Your task to perform on an android device: change your default location settings in chrome Image 0: 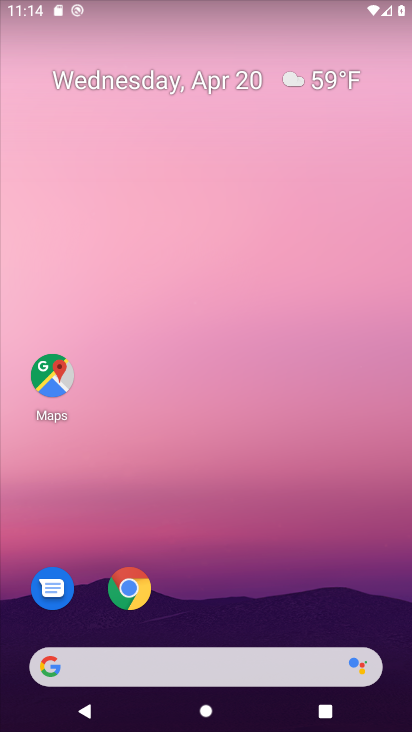
Step 0: click (130, 588)
Your task to perform on an android device: change your default location settings in chrome Image 1: 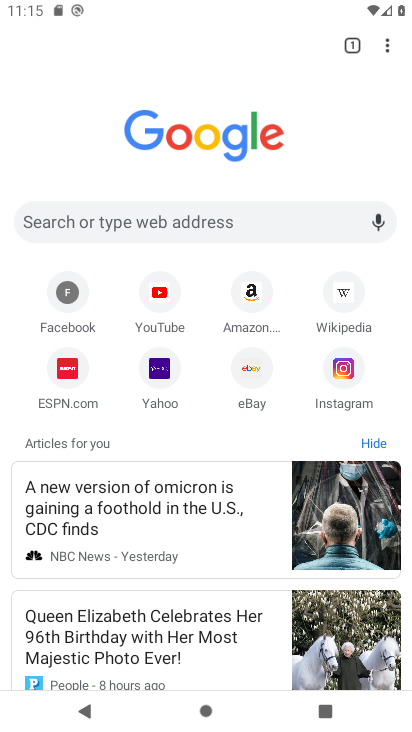
Step 1: click (385, 50)
Your task to perform on an android device: change your default location settings in chrome Image 2: 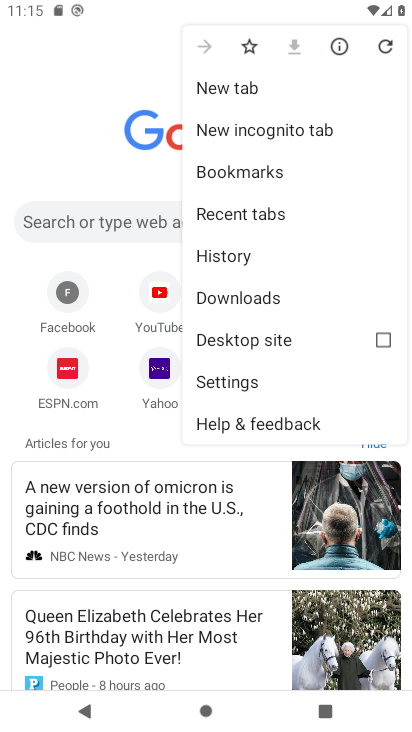
Step 2: click (226, 378)
Your task to perform on an android device: change your default location settings in chrome Image 3: 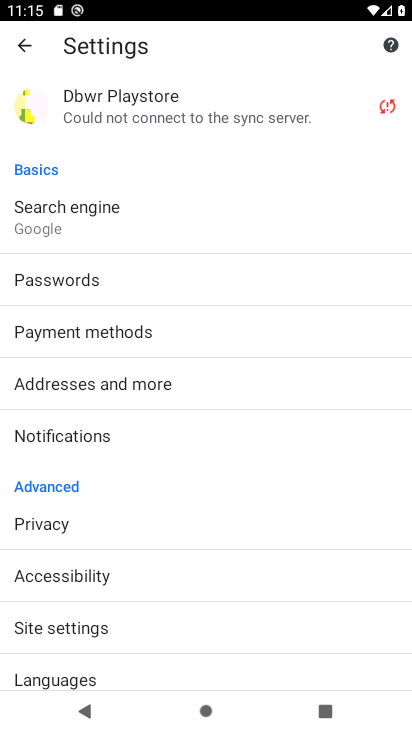
Step 3: drag from (181, 570) to (212, 335)
Your task to perform on an android device: change your default location settings in chrome Image 4: 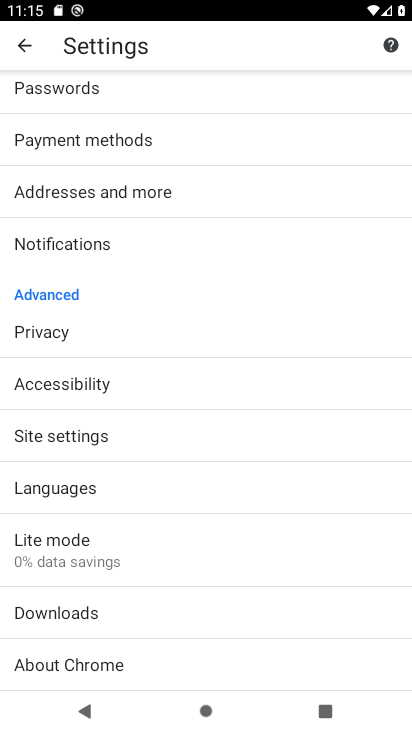
Step 4: click (58, 429)
Your task to perform on an android device: change your default location settings in chrome Image 5: 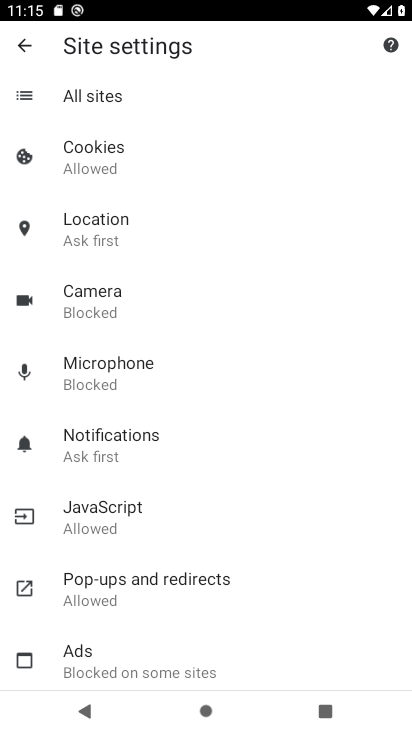
Step 5: click (101, 232)
Your task to perform on an android device: change your default location settings in chrome Image 6: 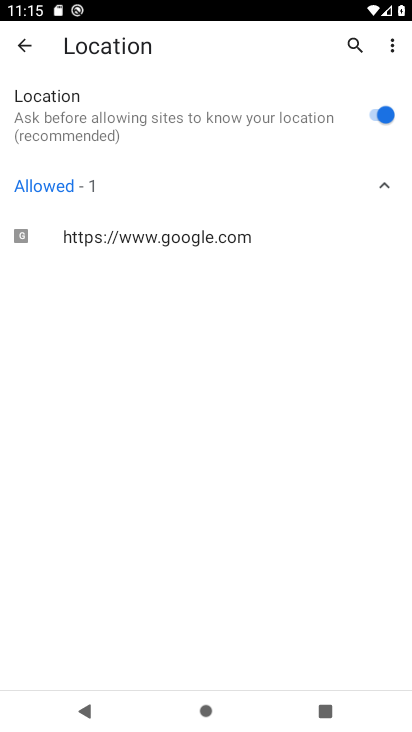
Step 6: click (369, 113)
Your task to perform on an android device: change your default location settings in chrome Image 7: 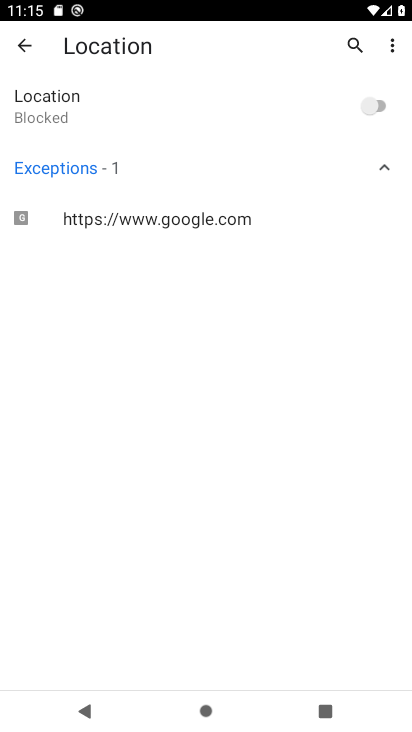
Step 7: task complete